Your task to perform on an android device: turn on priority inbox in the gmail app Image 0: 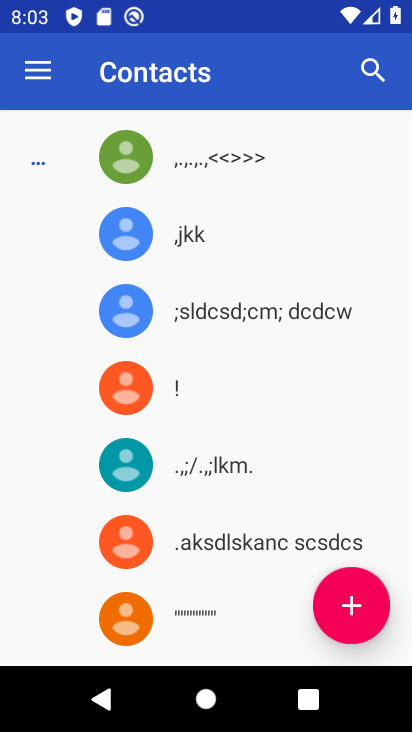
Step 0: press home button
Your task to perform on an android device: turn on priority inbox in the gmail app Image 1: 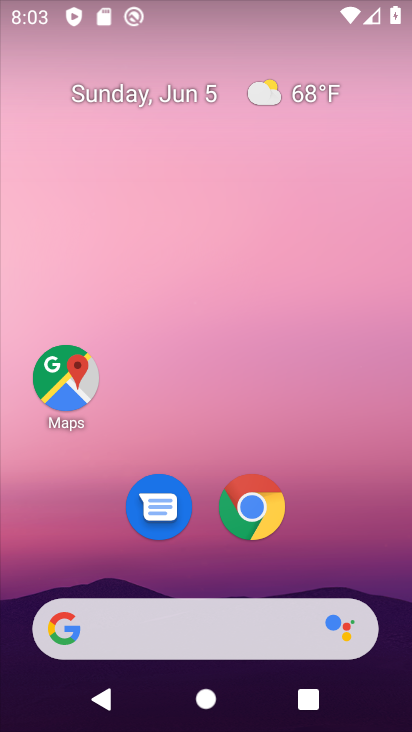
Step 1: drag from (209, 556) to (362, 35)
Your task to perform on an android device: turn on priority inbox in the gmail app Image 2: 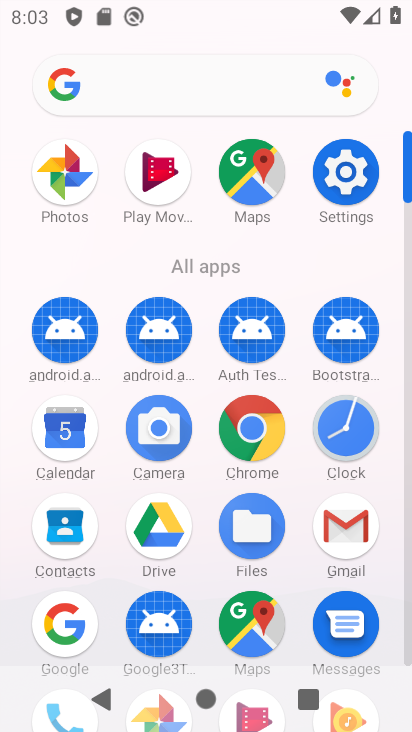
Step 2: click (348, 541)
Your task to perform on an android device: turn on priority inbox in the gmail app Image 3: 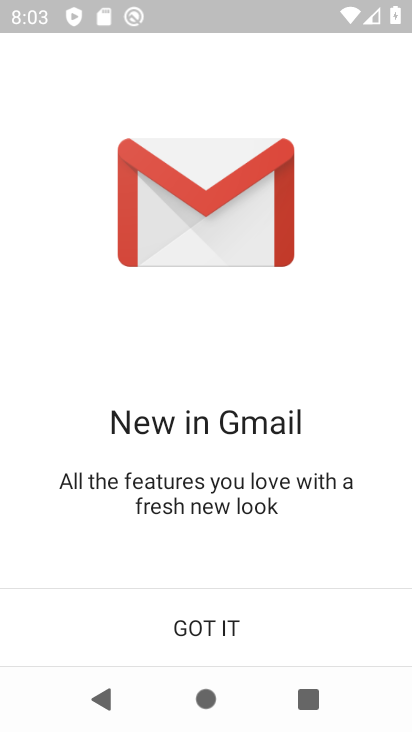
Step 3: click (257, 621)
Your task to perform on an android device: turn on priority inbox in the gmail app Image 4: 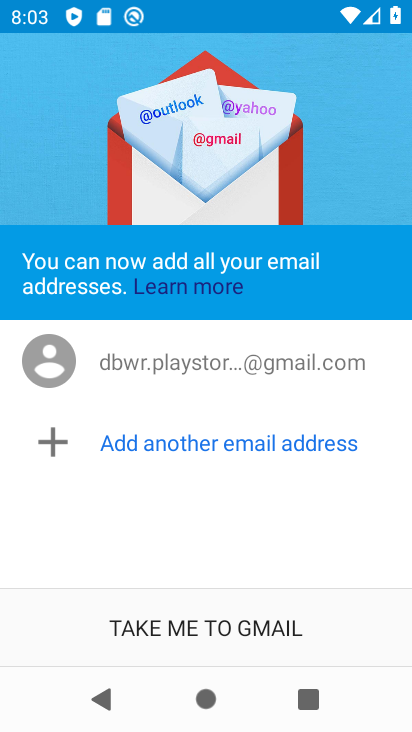
Step 4: click (254, 627)
Your task to perform on an android device: turn on priority inbox in the gmail app Image 5: 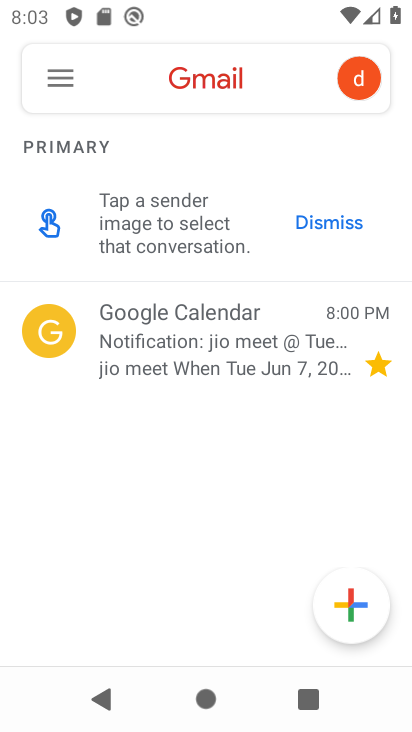
Step 5: click (65, 80)
Your task to perform on an android device: turn on priority inbox in the gmail app Image 6: 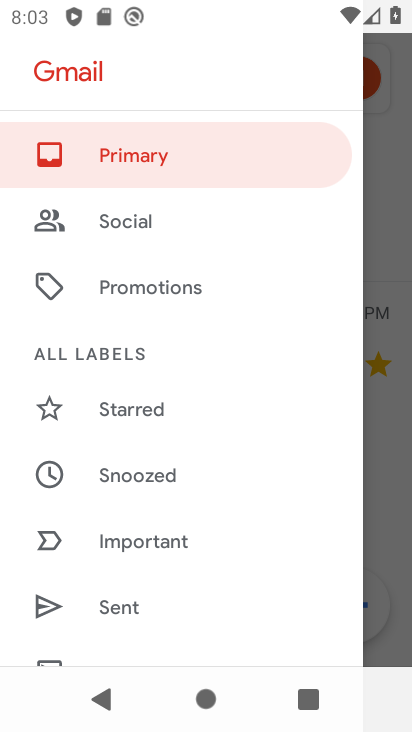
Step 6: drag from (147, 588) to (212, 17)
Your task to perform on an android device: turn on priority inbox in the gmail app Image 7: 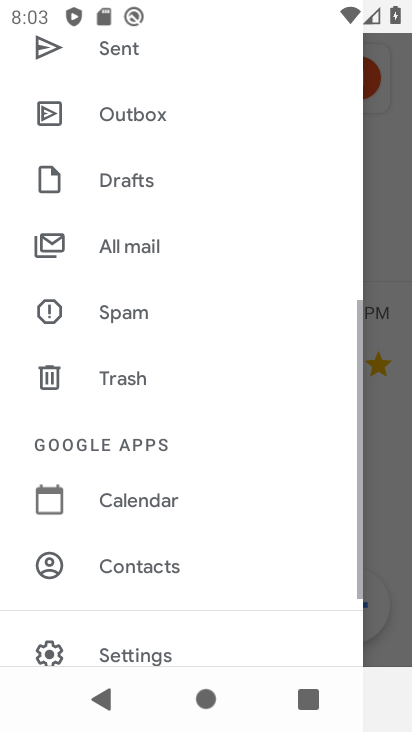
Step 7: drag from (150, 544) to (208, 50)
Your task to perform on an android device: turn on priority inbox in the gmail app Image 8: 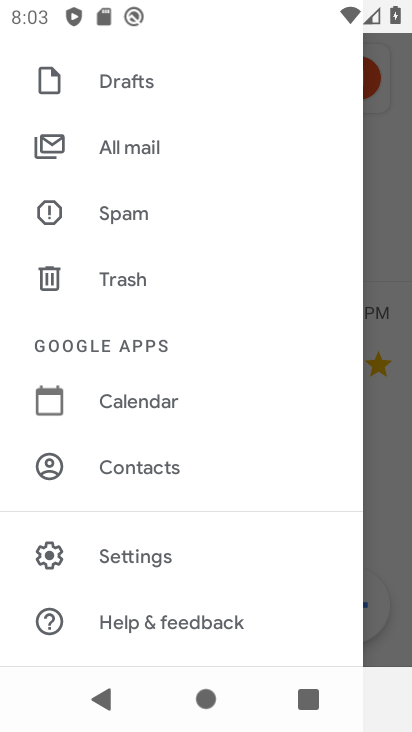
Step 8: click (140, 567)
Your task to perform on an android device: turn on priority inbox in the gmail app Image 9: 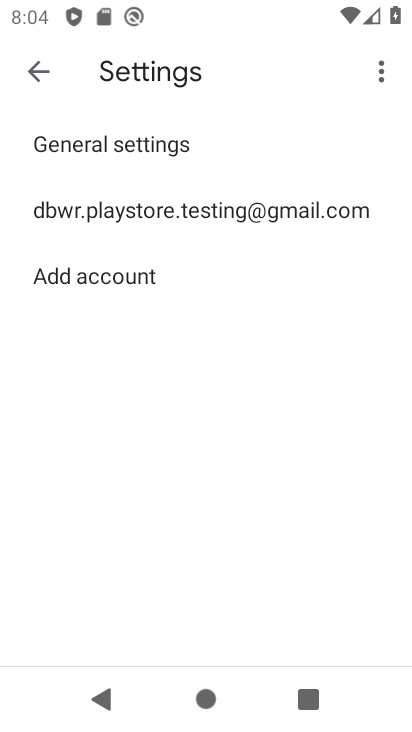
Step 9: click (147, 217)
Your task to perform on an android device: turn on priority inbox in the gmail app Image 10: 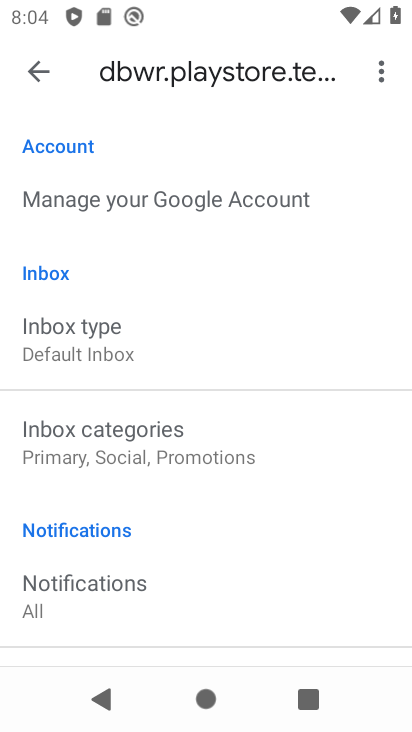
Step 10: click (114, 333)
Your task to perform on an android device: turn on priority inbox in the gmail app Image 11: 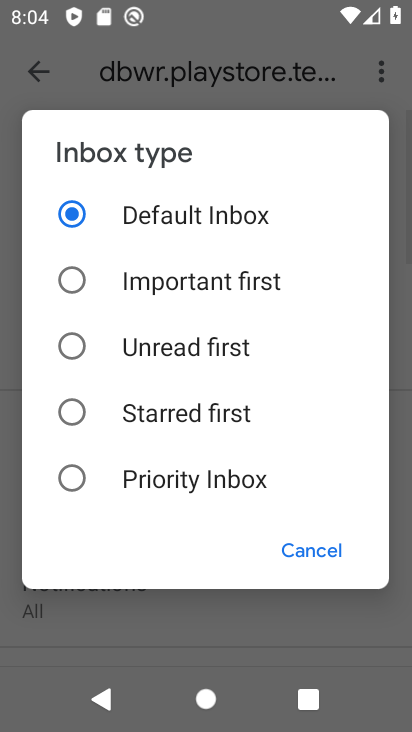
Step 11: click (140, 479)
Your task to perform on an android device: turn on priority inbox in the gmail app Image 12: 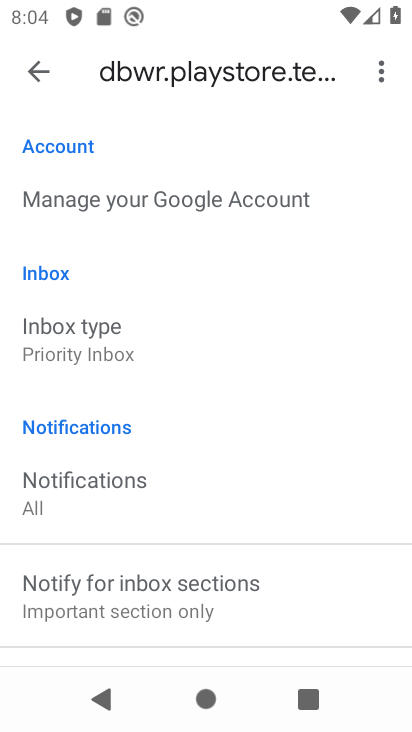
Step 12: task complete